Your task to perform on an android device: search for starred emails in the gmail app Image 0: 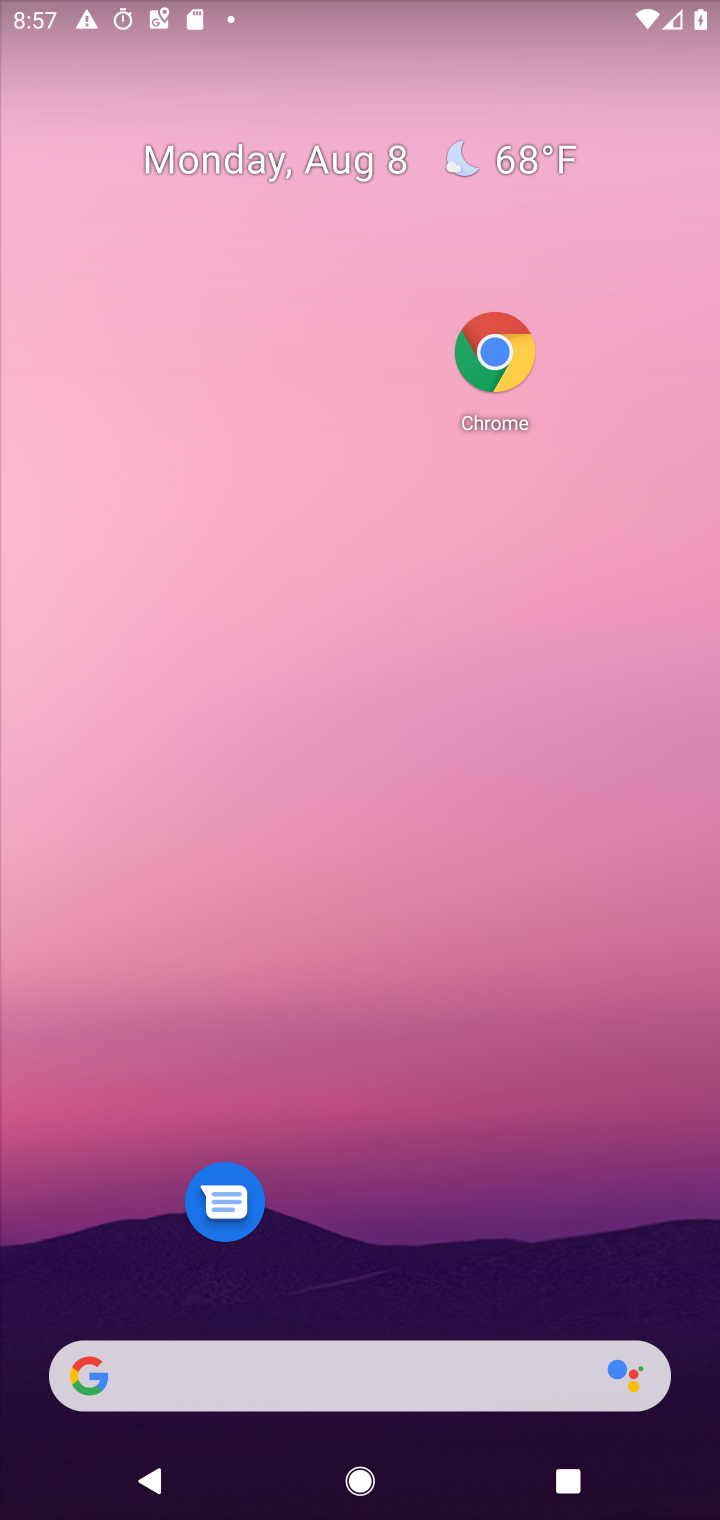
Step 0: drag from (332, 1186) to (481, 96)
Your task to perform on an android device: search for starred emails in the gmail app Image 1: 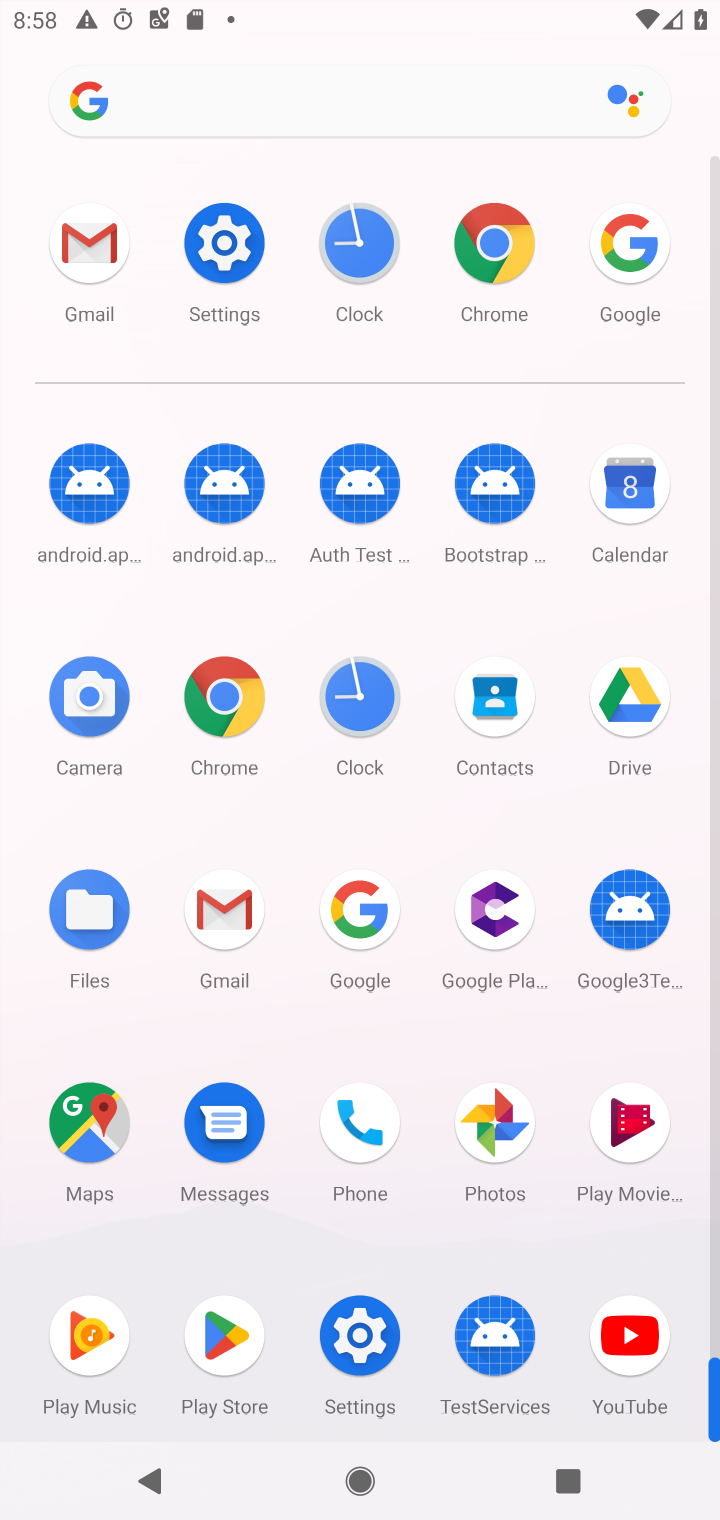
Step 1: click (214, 923)
Your task to perform on an android device: search for starred emails in the gmail app Image 2: 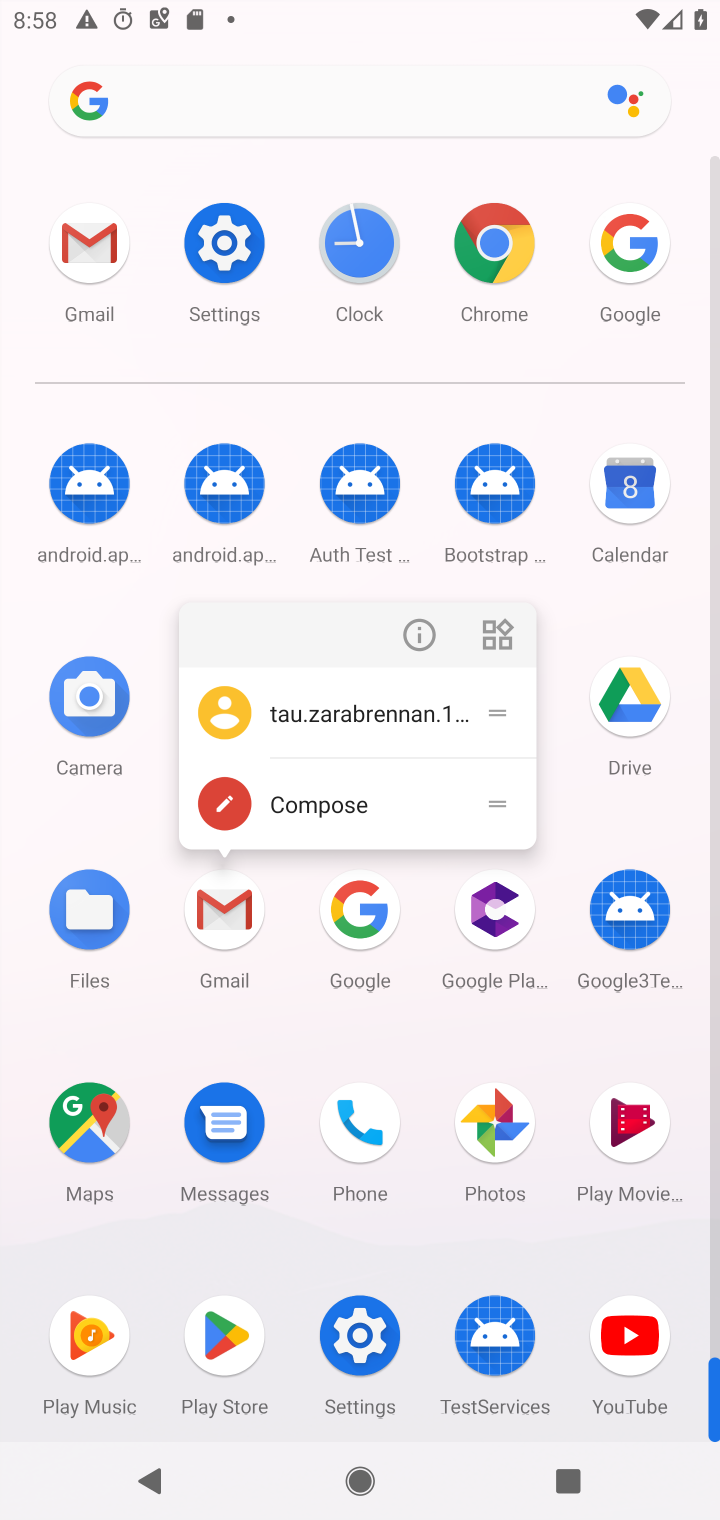
Step 2: click (244, 944)
Your task to perform on an android device: search for starred emails in the gmail app Image 3: 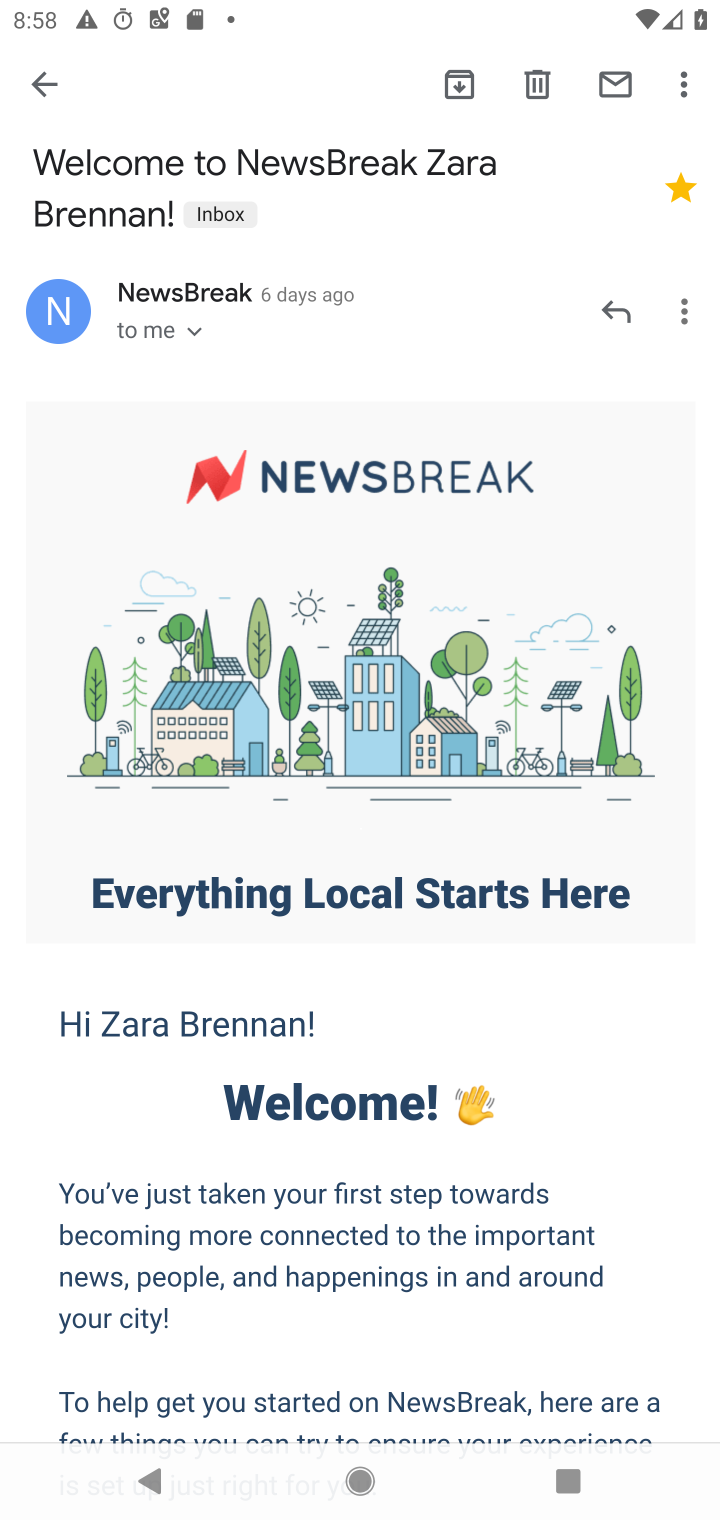
Step 3: click (44, 56)
Your task to perform on an android device: search for starred emails in the gmail app Image 4: 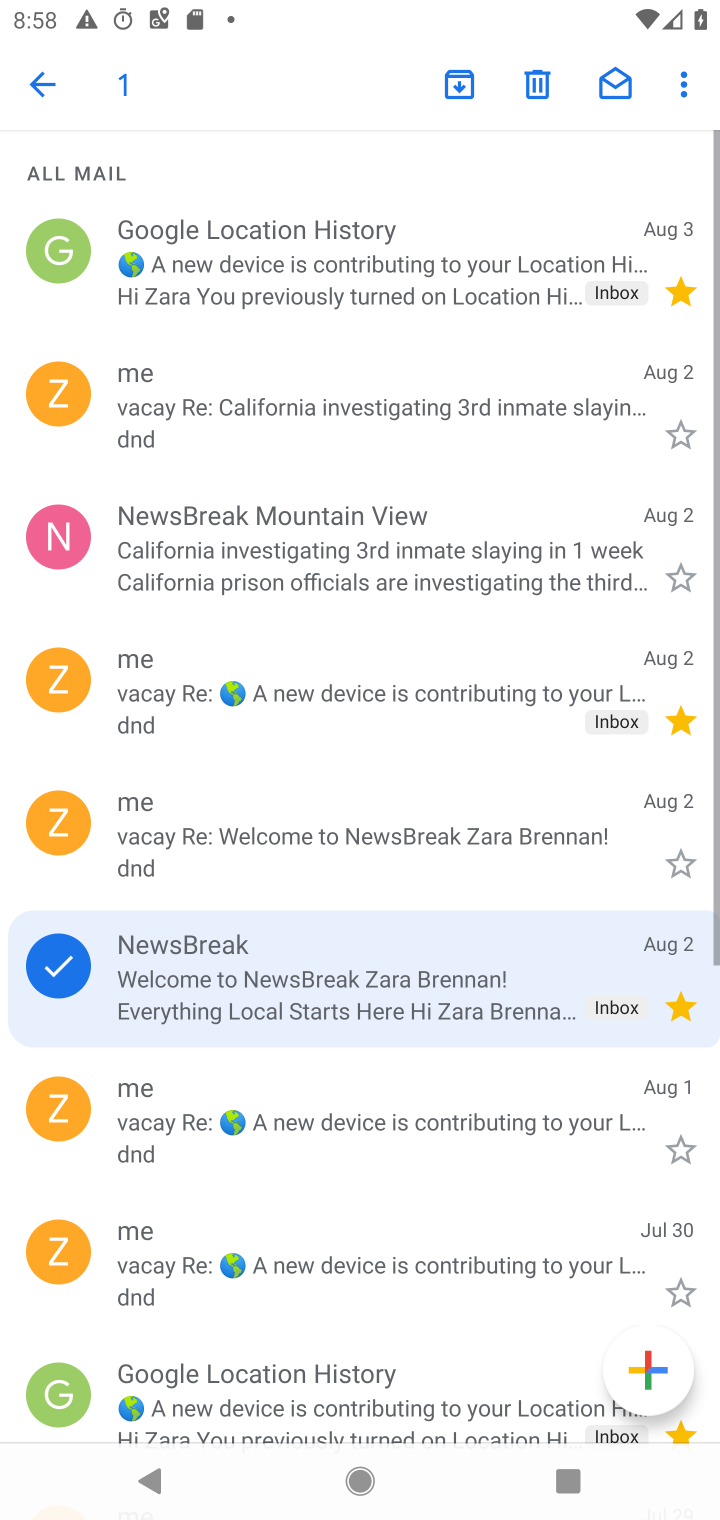
Step 4: click (54, 80)
Your task to perform on an android device: search for starred emails in the gmail app Image 5: 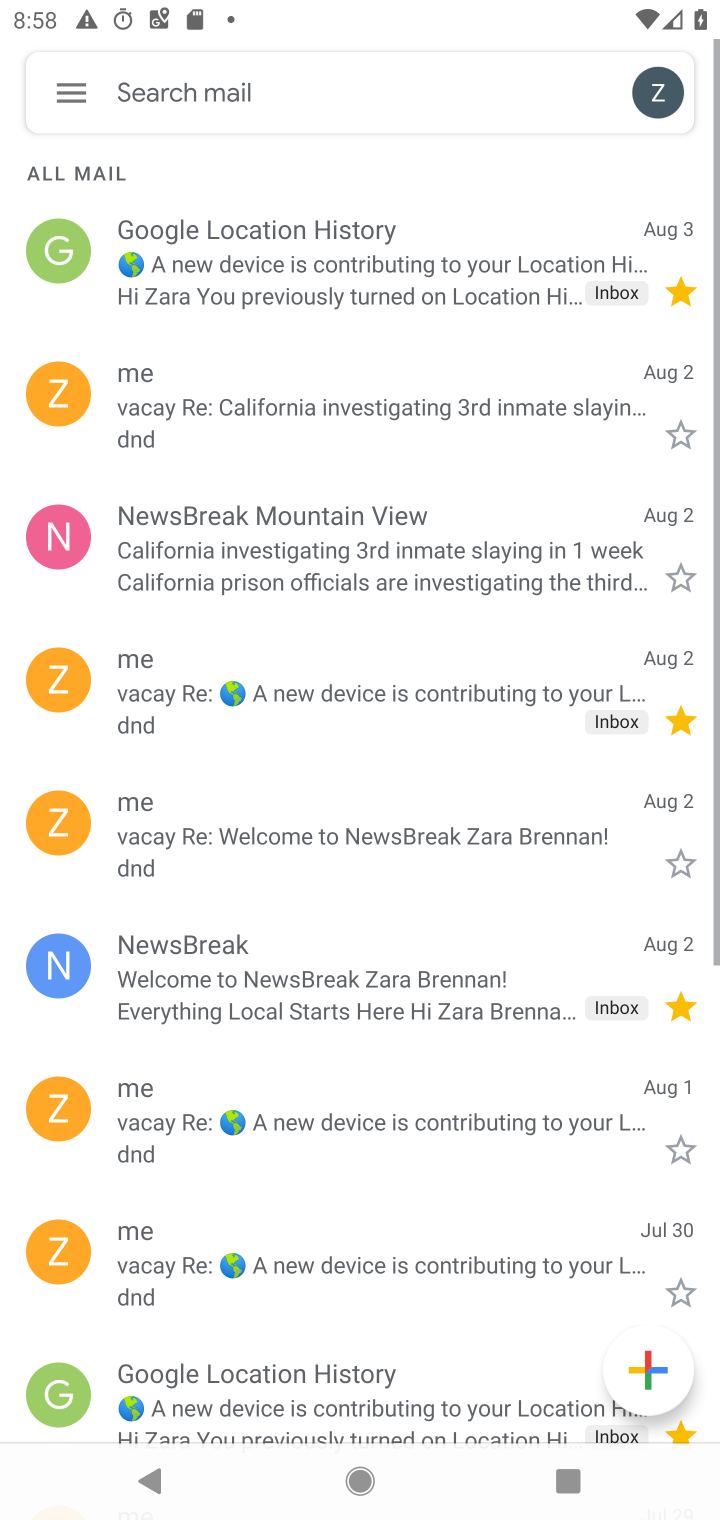
Step 5: click (71, 98)
Your task to perform on an android device: search for starred emails in the gmail app Image 6: 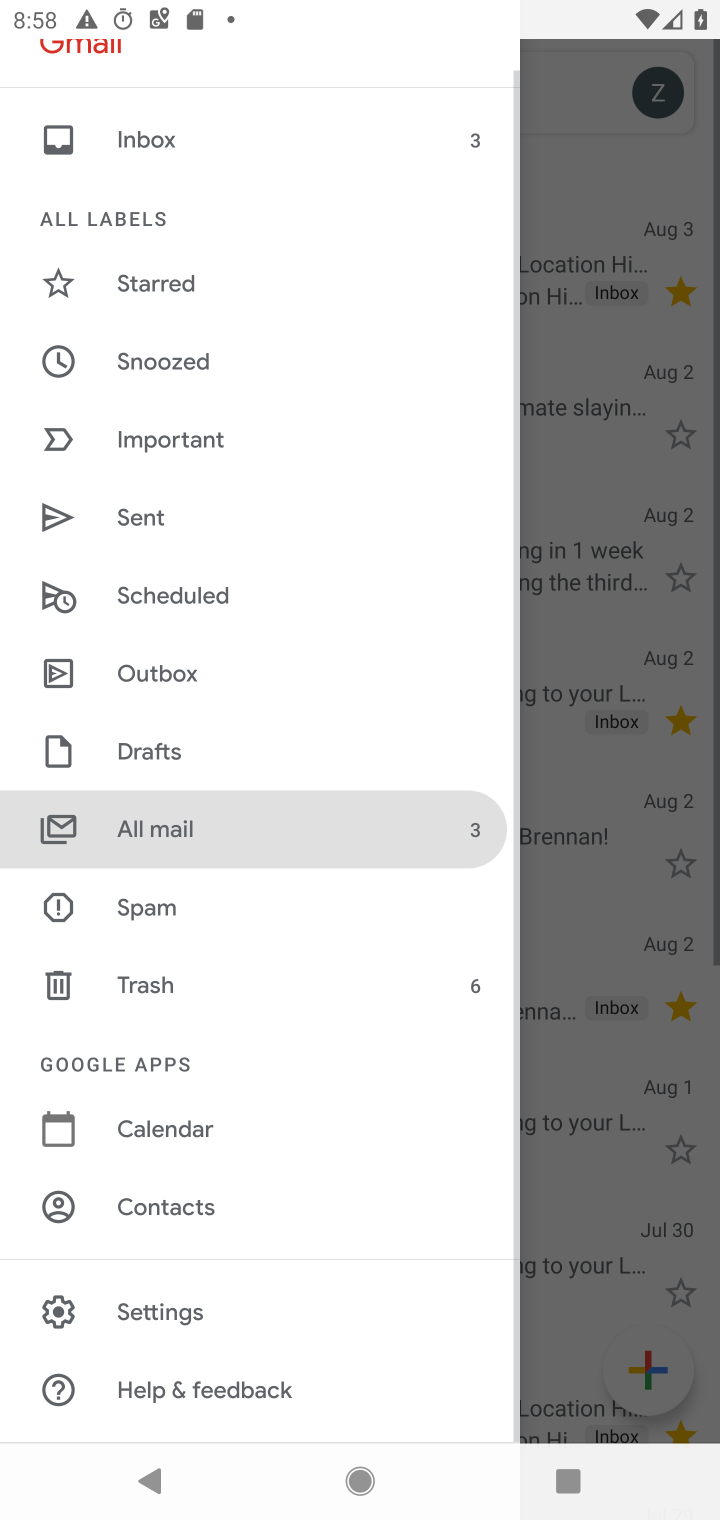
Step 6: click (161, 283)
Your task to perform on an android device: search for starred emails in the gmail app Image 7: 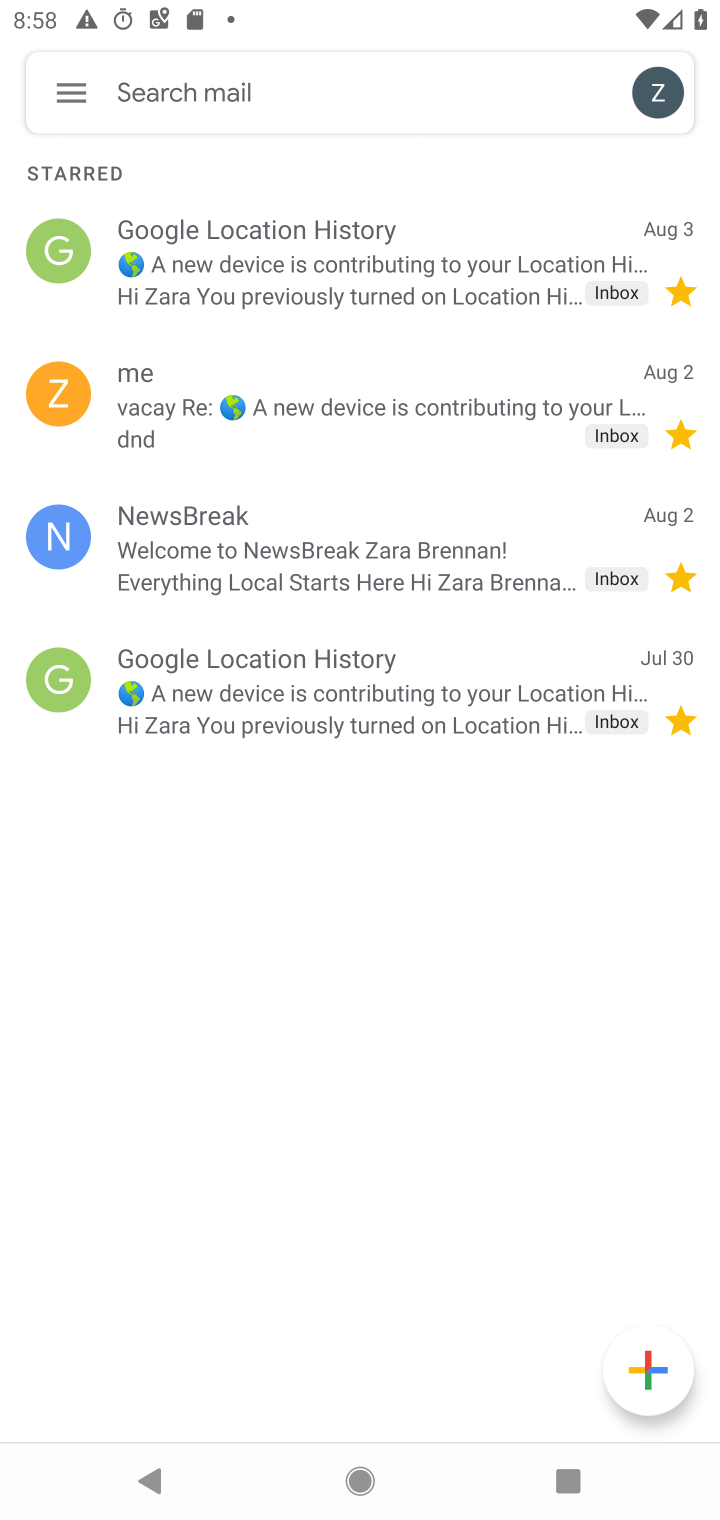
Step 7: task complete